Your task to perform on an android device: Go to ESPN.com Image 0: 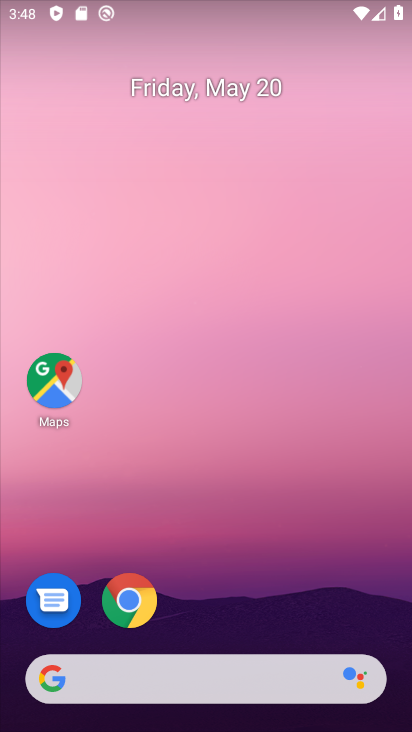
Step 0: click (121, 602)
Your task to perform on an android device: Go to ESPN.com Image 1: 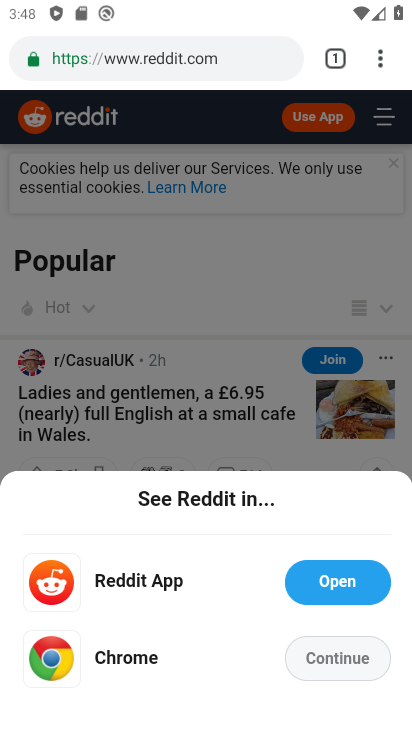
Step 1: click (332, 58)
Your task to perform on an android device: Go to ESPN.com Image 2: 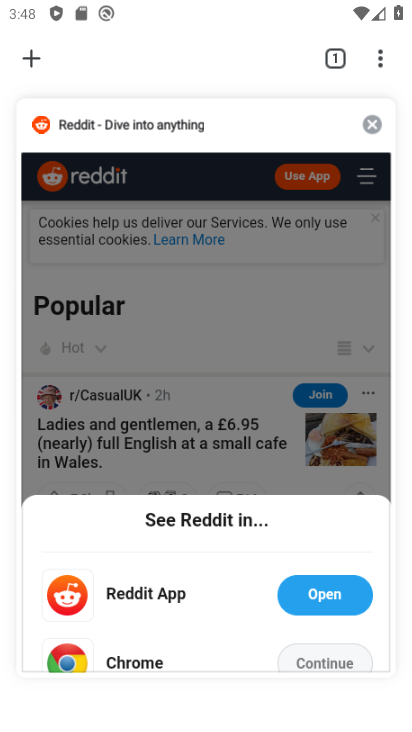
Step 2: click (33, 52)
Your task to perform on an android device: Go to ESPN.com Image 3: 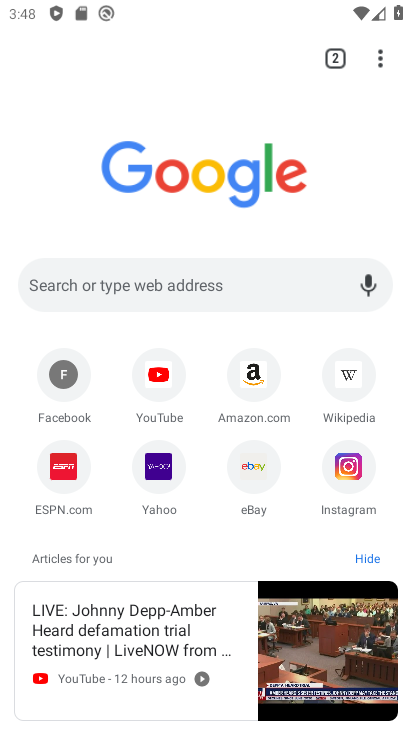
Step 3: click (52, 460)
Your task to perform on an android device: Go to ESPN.com Image 4: 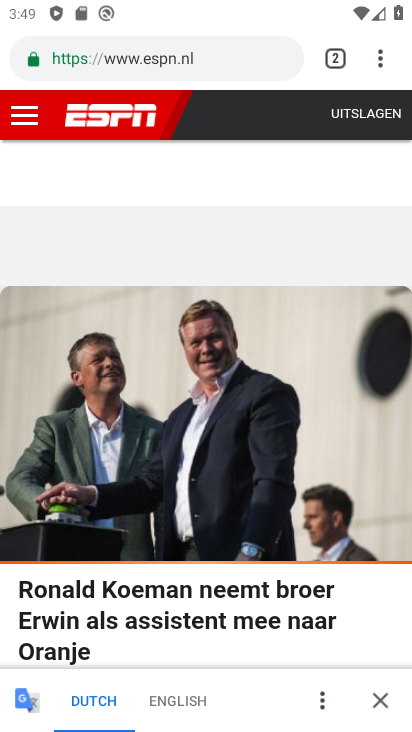
Step 4: task complete